Your task to perform on an android device: install app "Lyft - Rideshare, Bikes, Scooters & Transit" Image 0: 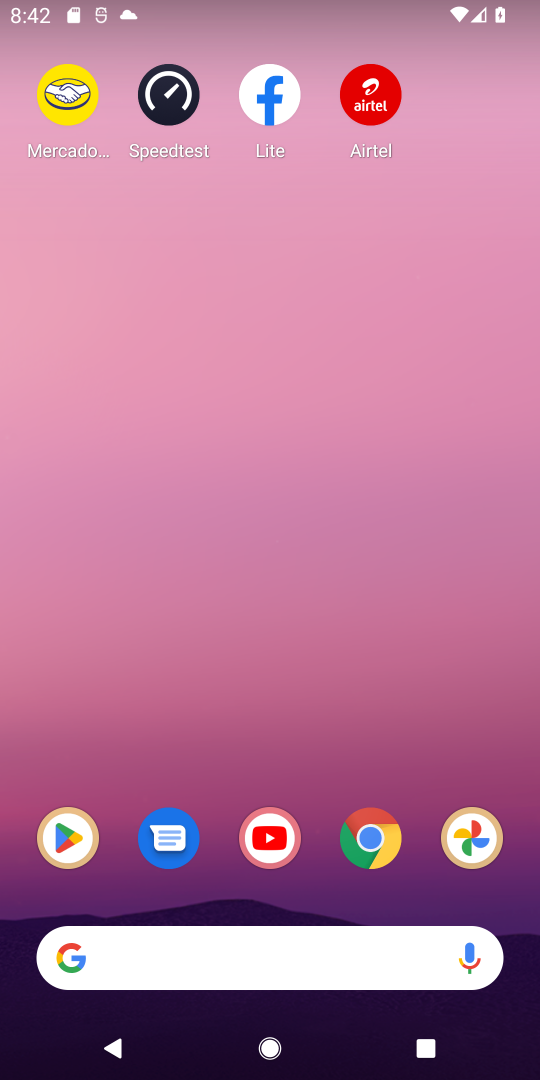
Step 0: press home button
Your task to perform on an android device: install app "Lyft - Rideshare, Bikes, Scooters & Transit" Image 1: 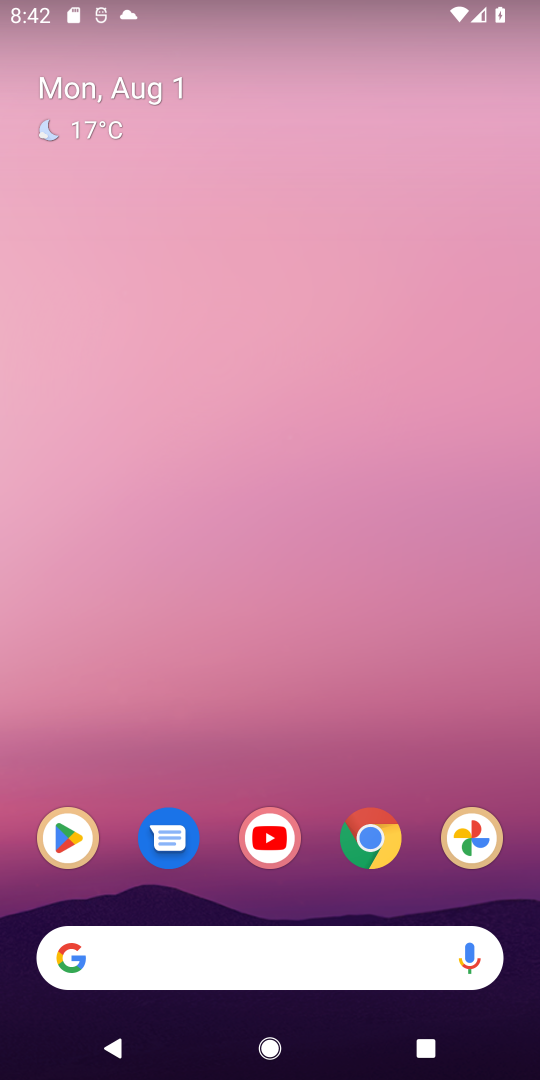
Step 1: click (55, 832)
Your task to perform on an android device: install app "Lyft - Rideshare, Bikes, Scooters & Transit" Image 2: 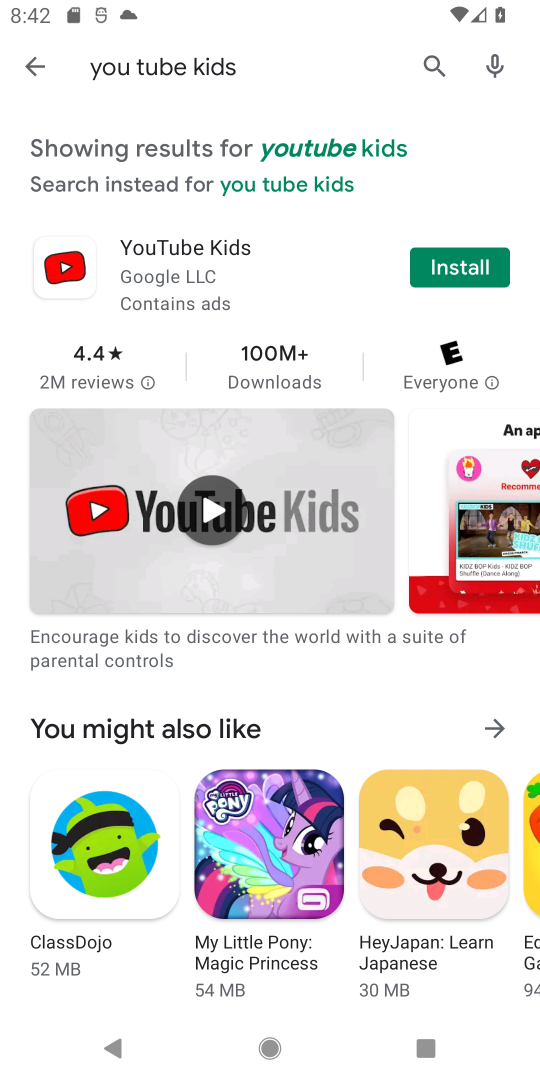
Step 2: click (432, 66)
Your task to perform on an android device: install app "Lyft - Rideshare, Bikes, Scooters & Transit" Image 3: 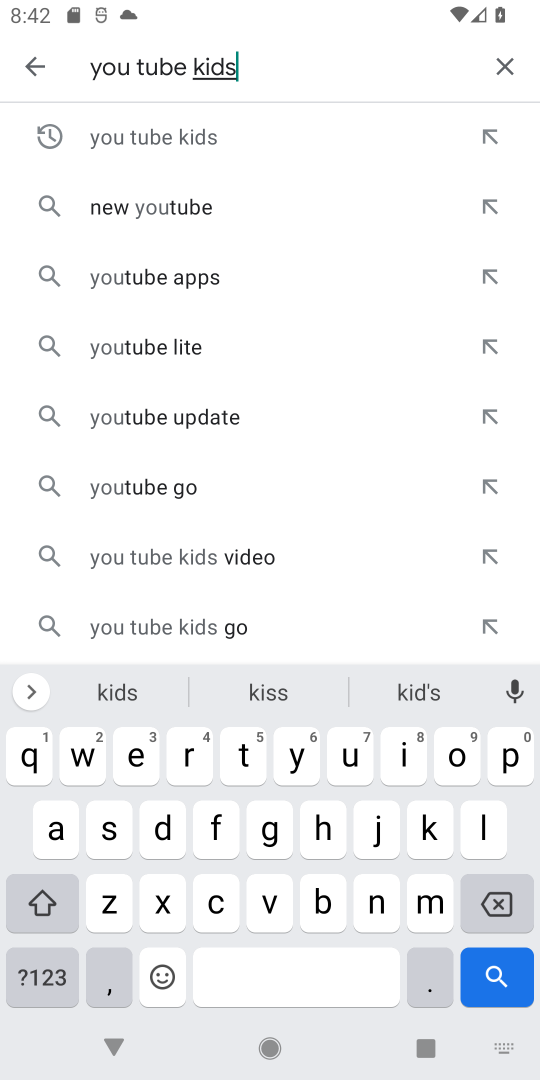
Step 3: click (501, 63)
Your task to perform on an android device: install app "Lyft - Rideshare, Bikes, Scooters & Transit" Image 4: 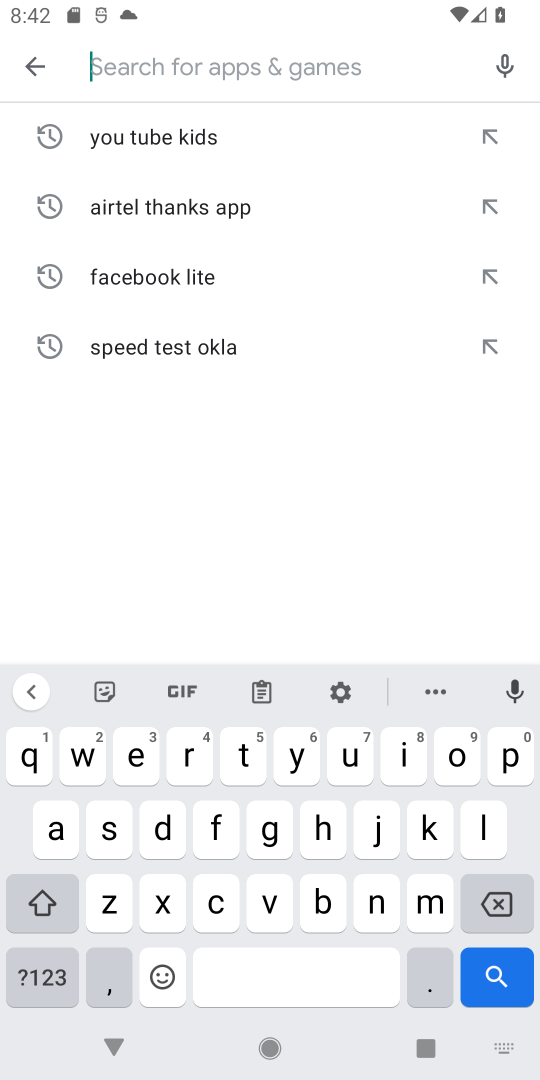
Step 4: click (484, 818)
Your task to perform on an android device: install app "Lyft - Rideshare, Bikes, Scooters & Transit" Image 5: 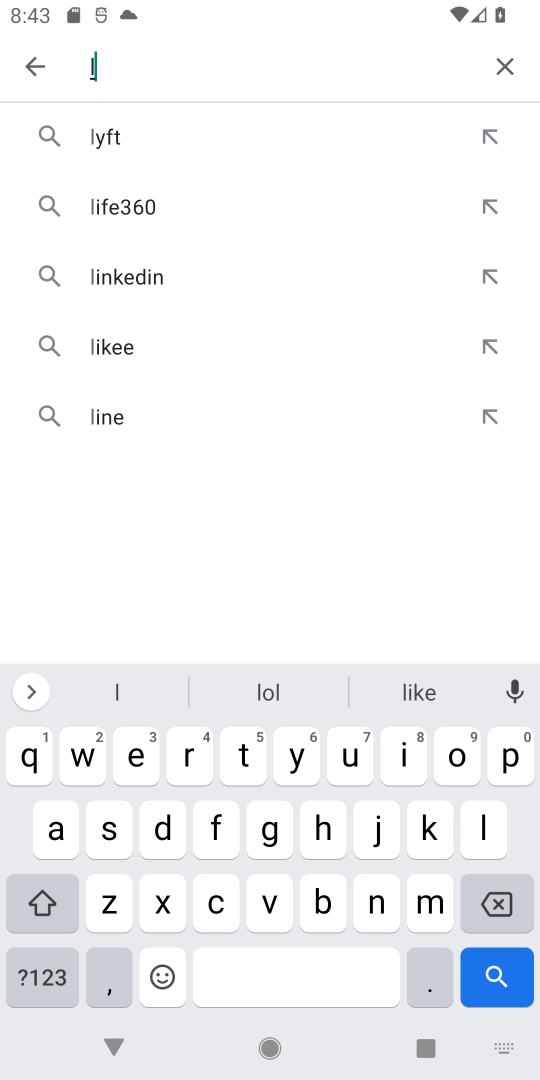
Step 5: click (294, 743)
Your task to perform on an android device: install app "Lyft - Rideshare, Bikes, Scooters & Transit" Image 6: 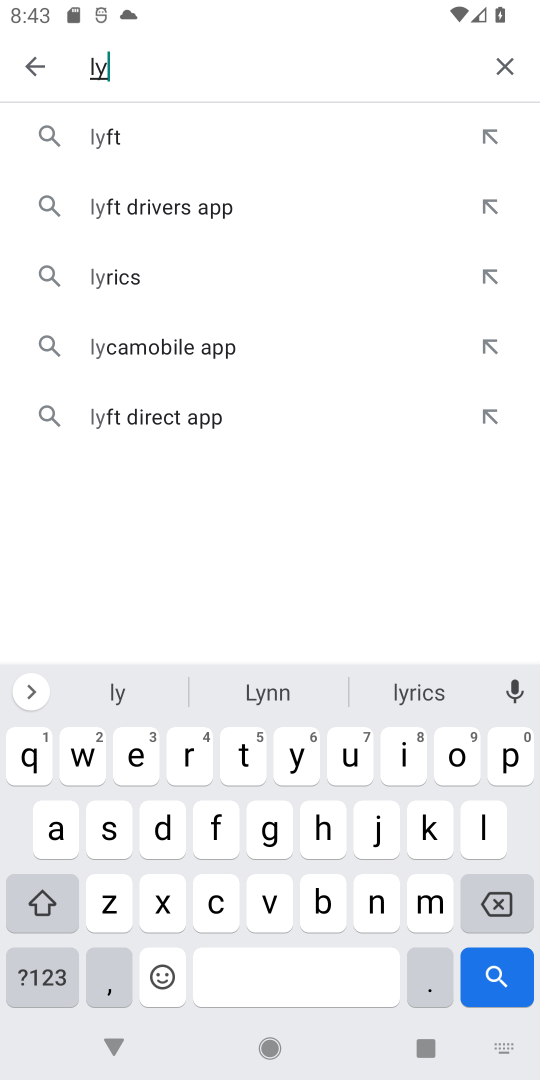
Step 6: click (133, 139)
Your task to perform on an android device: install app "Lyft - Rideshare, Bikes, Scooters & Transit" Image 7: 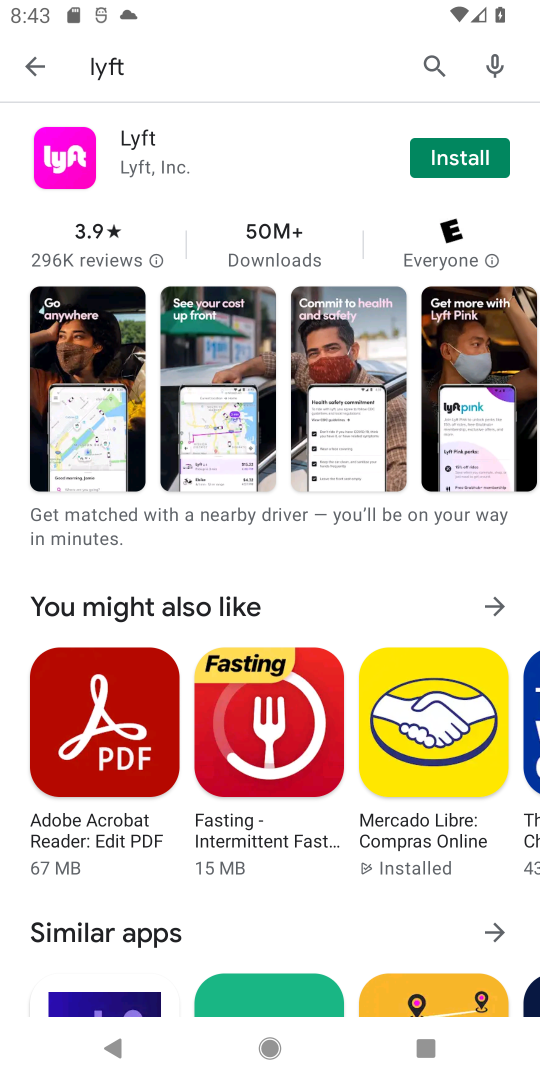
Step 7: click (429, 164)
Your task to perform on an android device: install app "Lyft - Rideshare, Bikes, Scooters & Transit" Image 8: 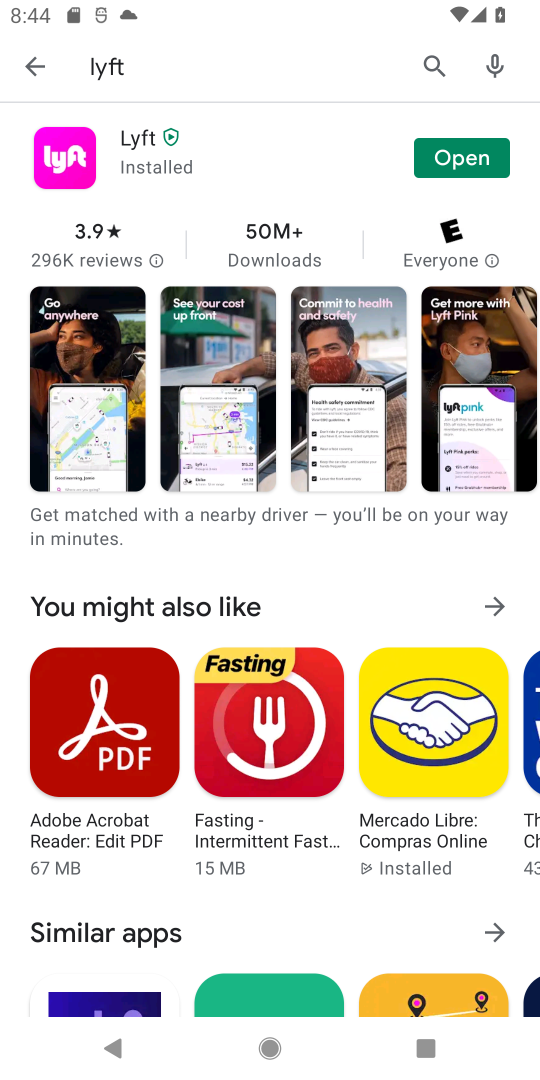
Step 8: task complete